Your task to perform on an android device: delete the emails in spam in the gmail app Image 0: 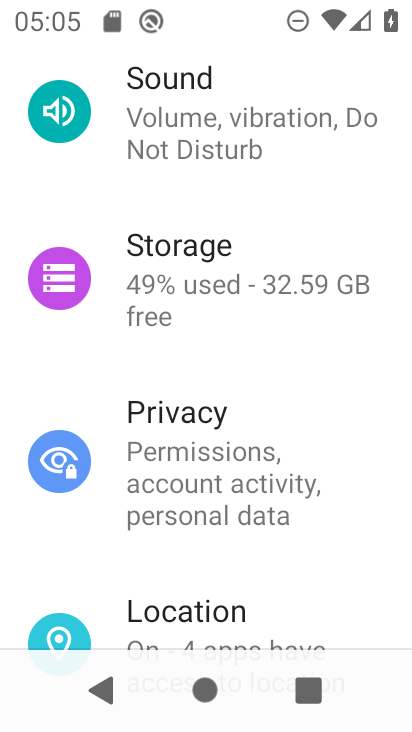
Step 0: press home button
Your task to perform on an android device: delete the emails in spam in the gmail app Image 1: 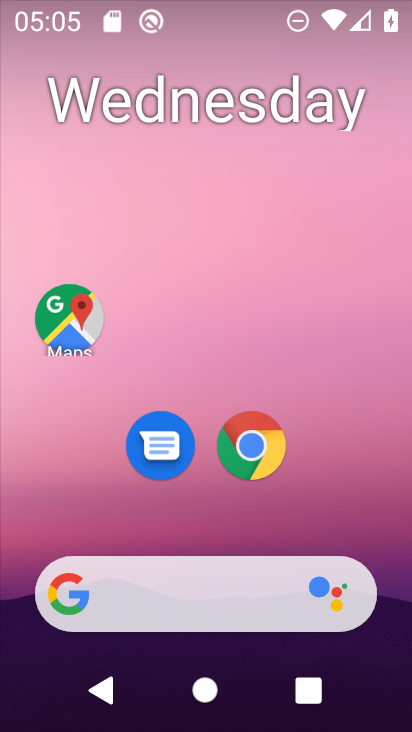
Step 1: drag from (185, 524) to (203, 49)
Your task to perform on an android device: delete the emails in spam in the gmail app Image 2: 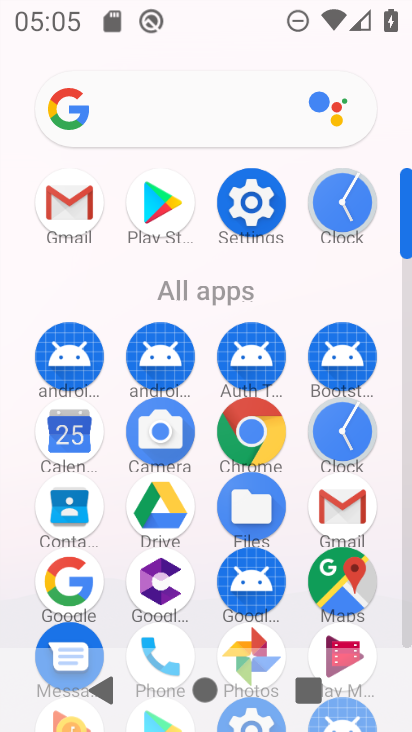
Step 2: click (77, 204)
Your task to perform on an android device: delete the emails in spam in the gmail app Image 3: 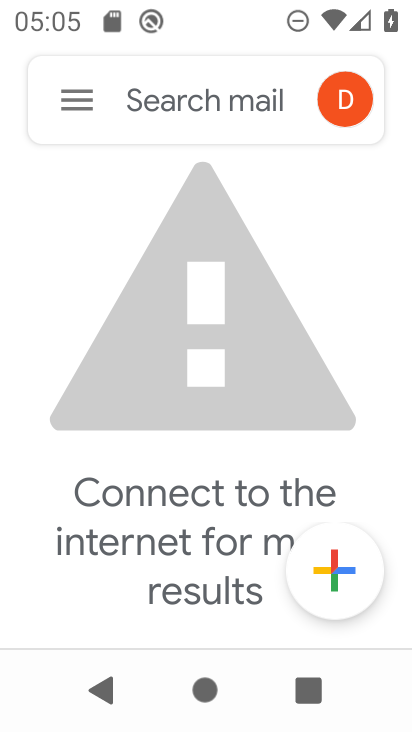
Step 3: click (73, 116)
Your task to perform on an android device: delete the emails in spam in the gmail app Image 4: 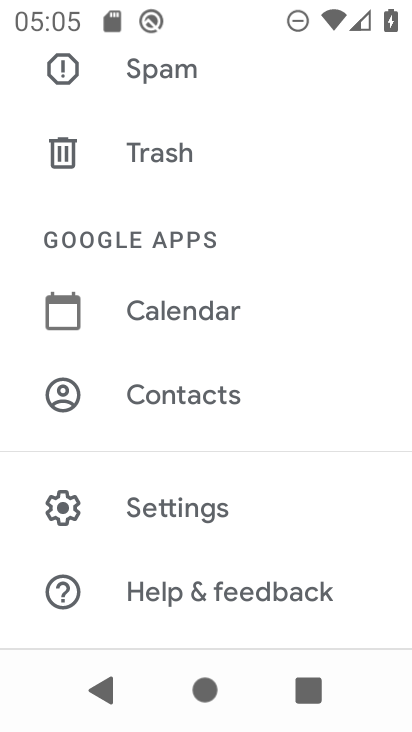
Step 4: drag from (232, 116) to (187, 481)
Your task to perform on an android device: delete the emails in spam in the gmail app Image 5: 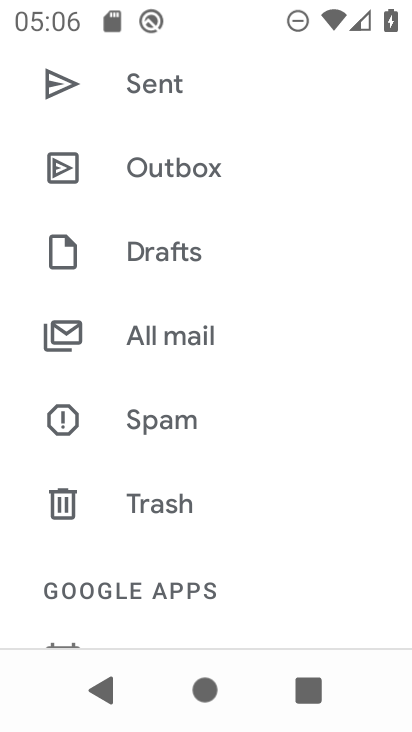
Step 5: drag from (197, 95) to (154, 547)
Your task to perform on an android device: delete the emails in spam in the gmail app Image 6: 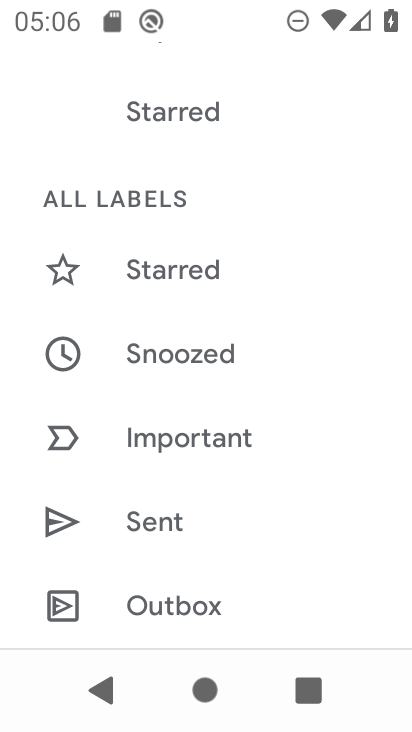
Step 6: drag from (148, 567) to (259, 174)
Your task to perform on an android device: delete the emails in spam in the gmail app Image 7: 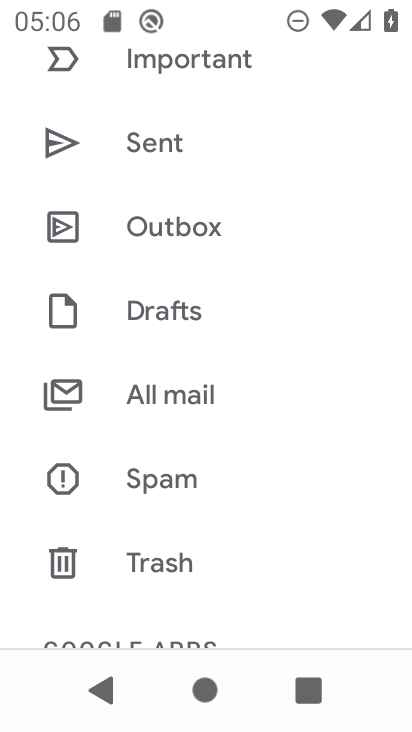
Step 7: click (149, 494)
Your task to perform on an android device: delete the emails in spam in the gmail app Image 8: 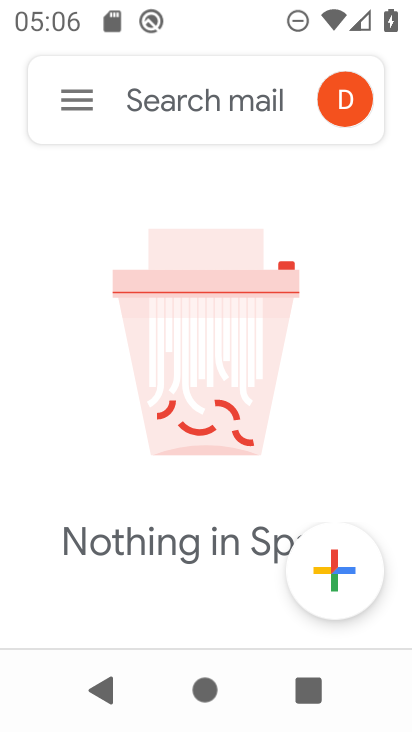
Step 8: task complete